Your task to perform on an android device: make emails show in primary in the gmail app Image 0: 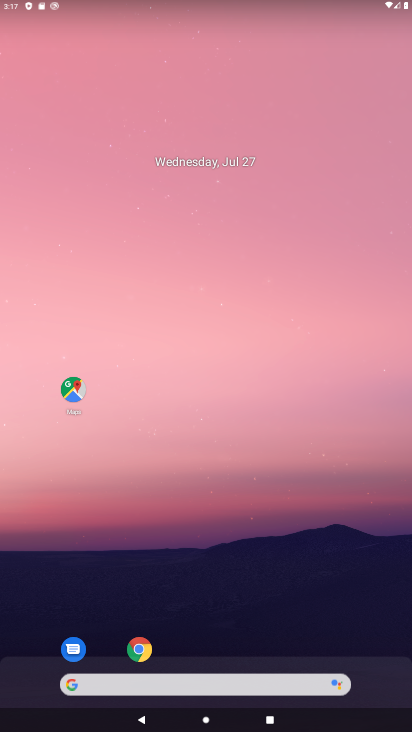
Step 0: drag from (384, 655) to (315, 138)
Your task to perform on an android device: make emails show in primary in the gmail app Image 1: 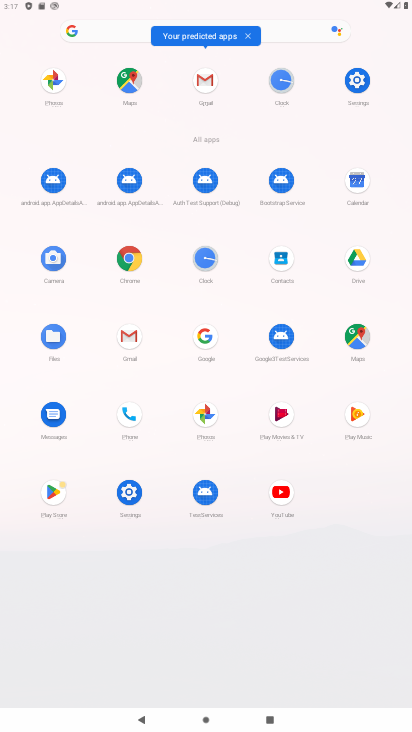
Step 1: click (129, 336)
Your task to perform on an android device: make emails show in primary in the gmail app Image 2: 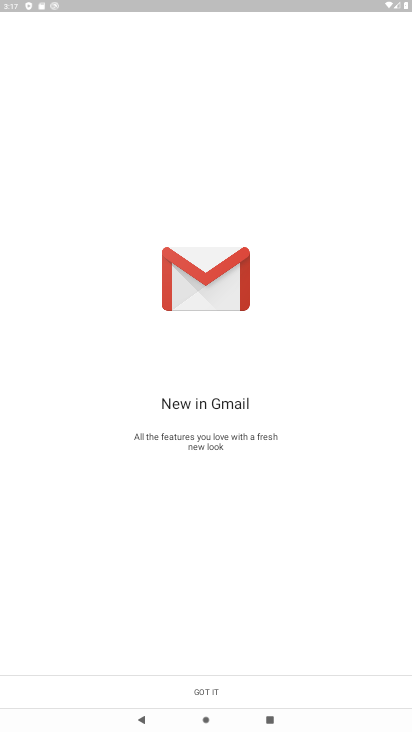
Step 2: click (205, 687)
Your task to perform on an android device: make emails show in primary in the gmail app Image 3: 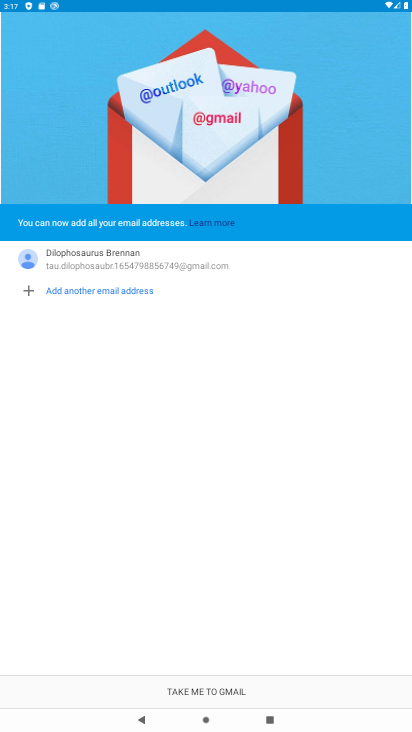
Step 3: click (203, 691)
Your task to perform on an android device: make emails show in primary in the gmail app Image 4: 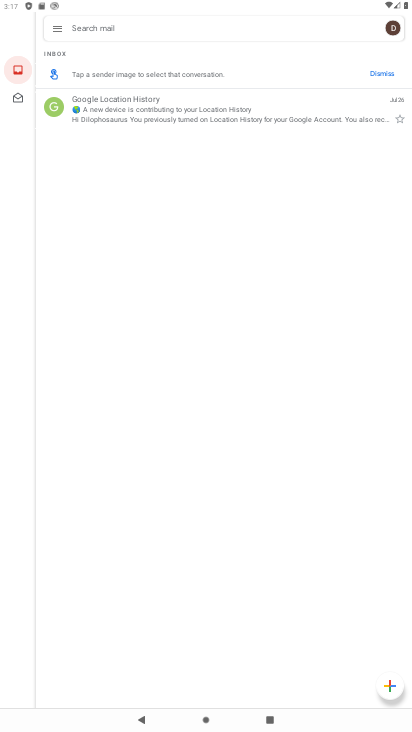
Step 4: click (54, 27)
Your task to perform on an android device: make emails show in primary in the gmail app Image 5: 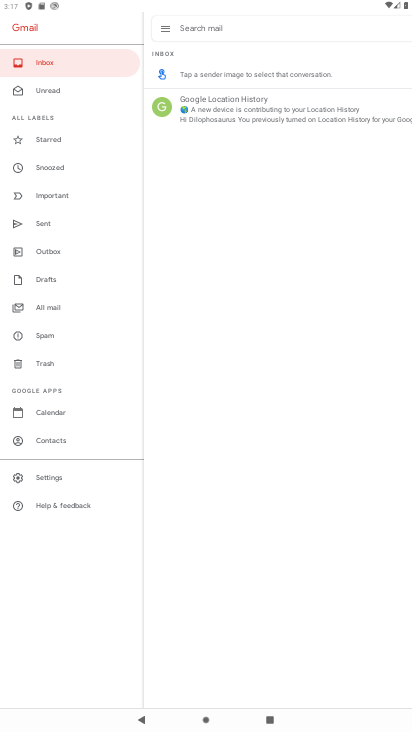
Step 5: click (55, 476)
Your task to perform on an android device: make emails show in primary in the gmail app Image 6: 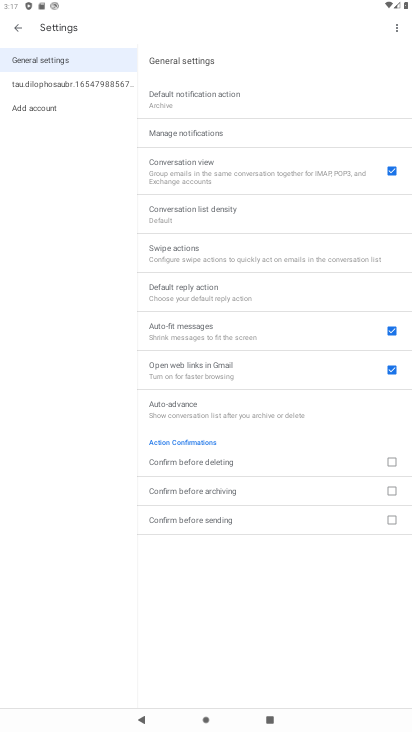
Step 6: click (62, 81)
Your task to perform on an android device: make emails show in primary in the gmail app Image 7: 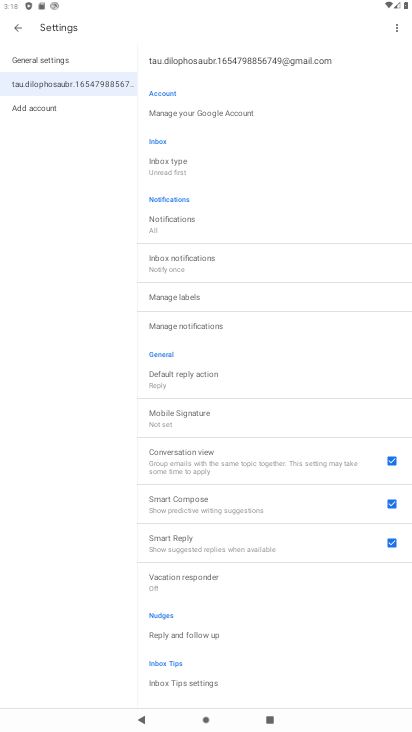
Step 7: click (169, 167)
Your task to perform on an android device: make emails show in primary in the gmail app Image 8: 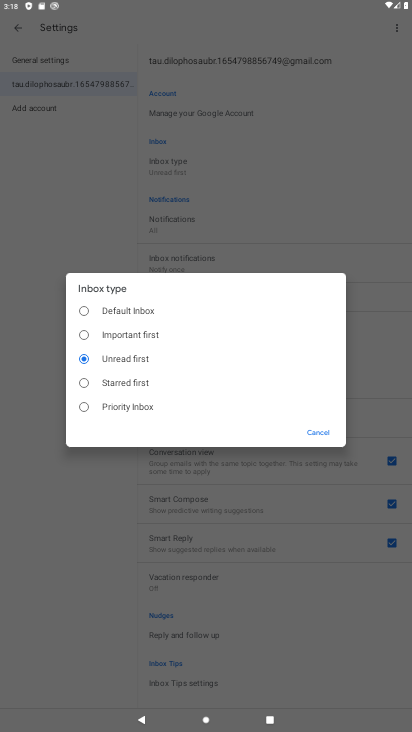
Step 8: click (82, 309)
Your task to perform on an android device: make emails show in primary in the gmail app Image 9: 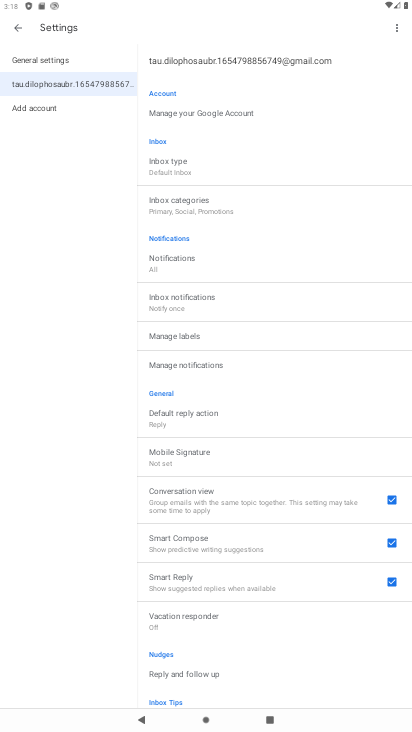
Step 9: click (183, 209)
Your task to perform on an android device: make emails show in primary in the gmail app Image 10: 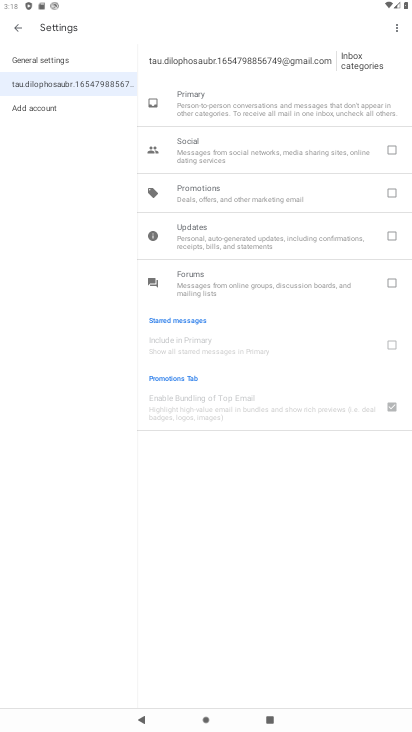
Step 10: task complete